Your task to perform on an android device: Show me recent news Image 0: 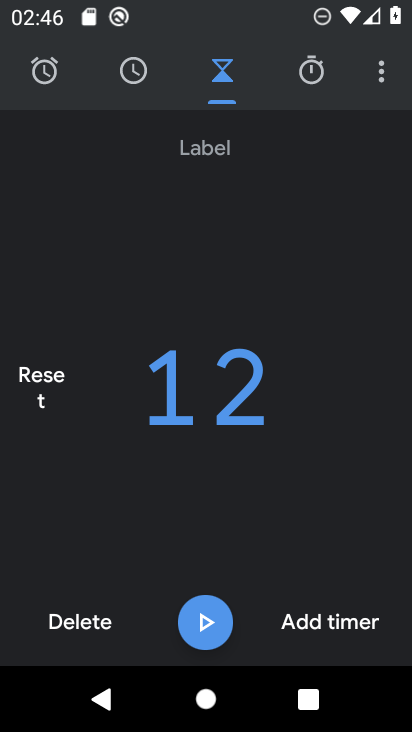
Step 0: press home button
Your task to perform on an android device: Show me recent news Image 1: 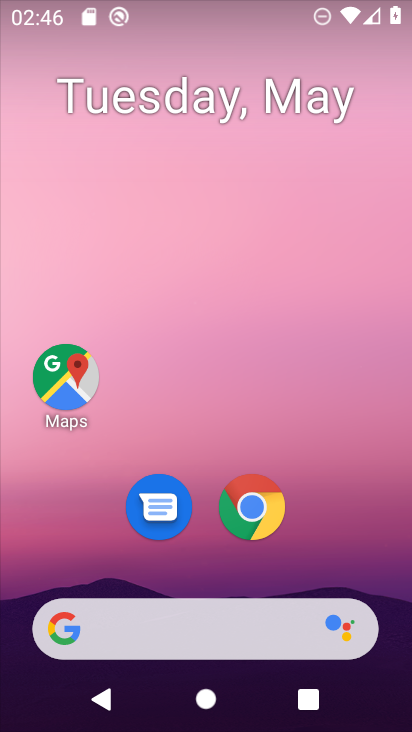
Step 1: drag from (206, 557) to (232, 184)
Your task to perform on an android device: Show me recent news Image 2: 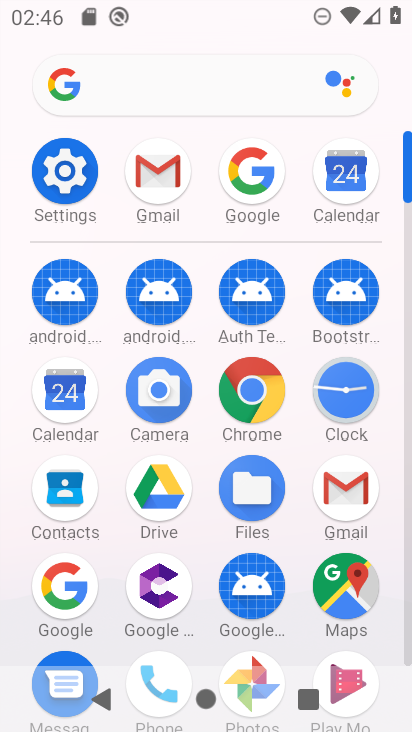
Step 2: click (239, 182)
Your task to perform on an android device: Show me recent news Image 3: 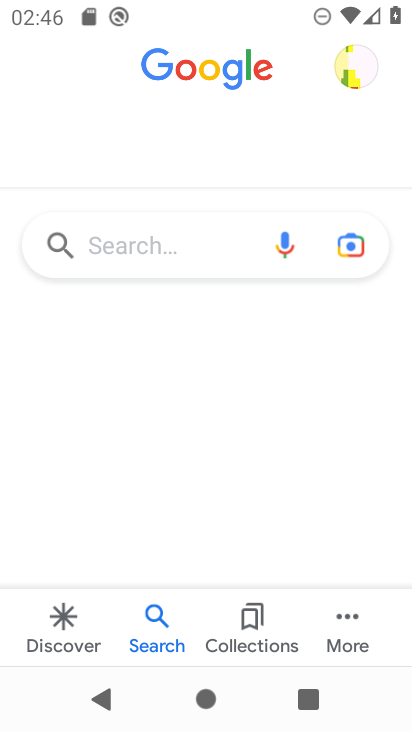
Step 3: click (155, 234)
Your task to perform on an android device: Show me recent news Image 4: 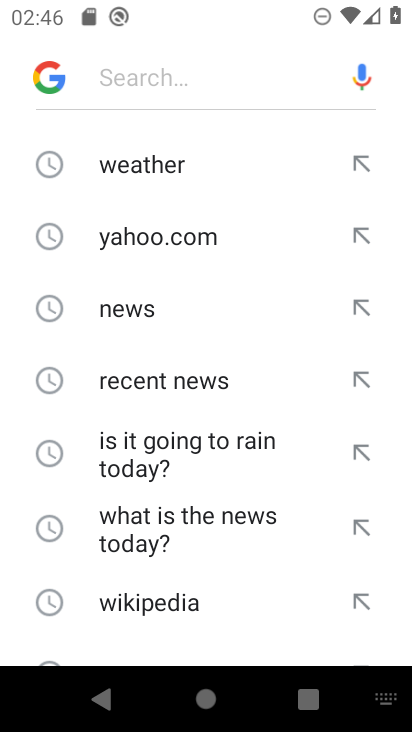
Step 4: type "news"
Your task to perform on an android device: Show me recent news Image 5: 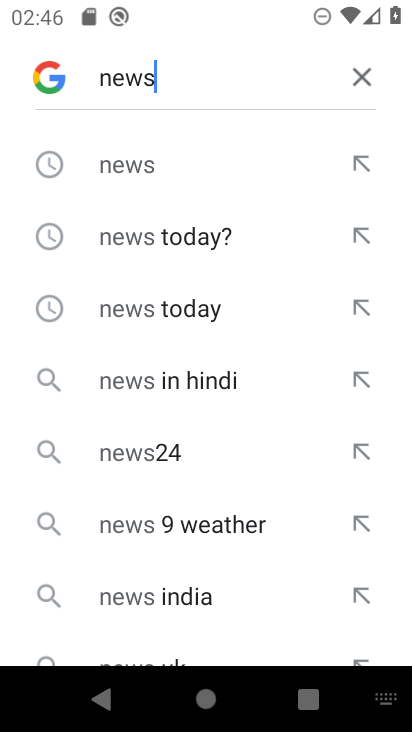
Step 5: click (151, 164)
Your task to perform on an android device: Show me recent news Image 6: 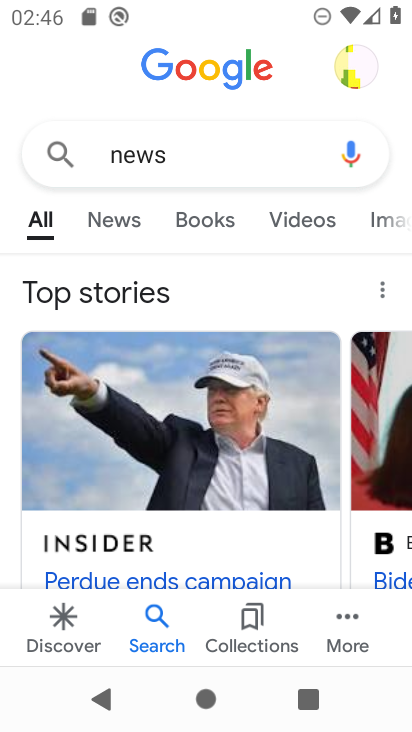
Step 6: click (105, 219)
Your task to perform on an android device: Show me recent news Image 7: 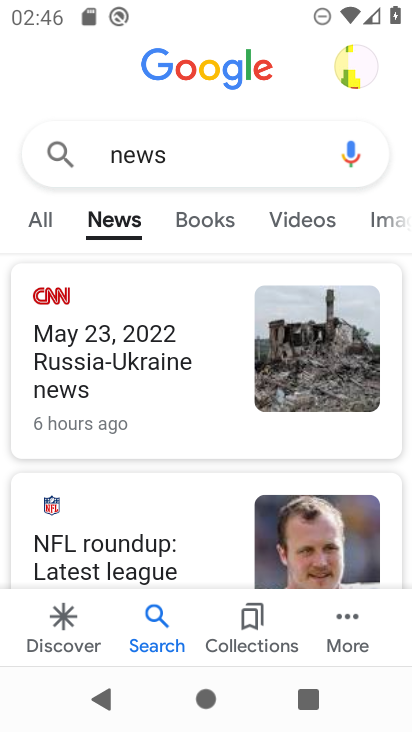
Step 7: task complete